Your task to perform on an android device: open app "The Home Depot" (install if not already installed), go to login, and select forgot password Image 0: 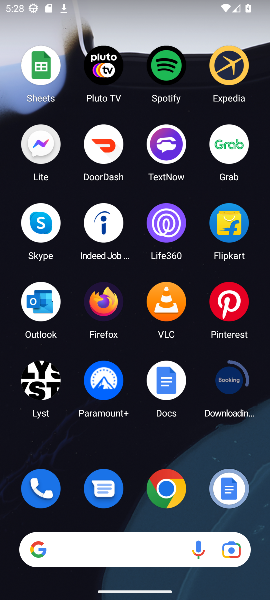
Step 0: press home button
Your task to perform on an android device: open app "The Home Depot" (install if not already installed), go to login, and select forgot password Image 1: 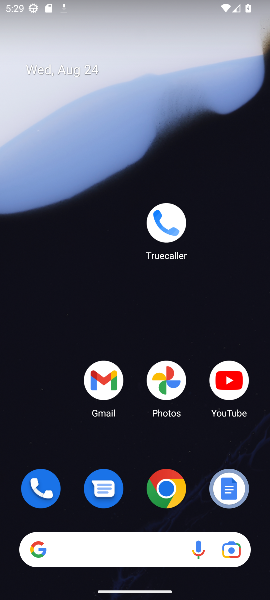
Step 1: drag from (148, 523) to (68, 1)
Your task to perform on an android device: open app "The Home Depot" (install if not already installed), go to login, and select forgot password Image 2: 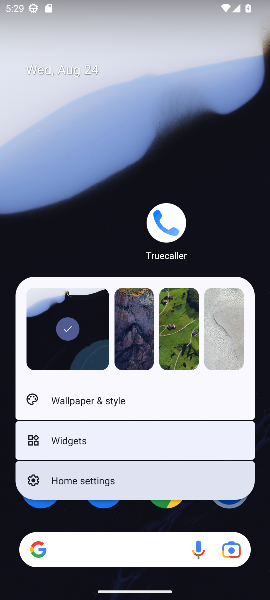
Step 2: click (65, 162)
Your task to perform on an android device: open app "The Home Depot" (install if not already installed), go to login, and select forgot password Image 3: 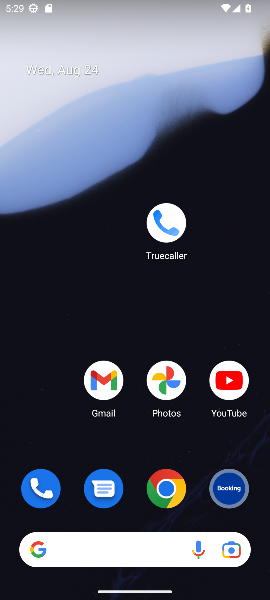
Step 3: drag from (134, 515) to (140, 132)
Your task to perform on an android device: open app "The Home Depot" (install if not already installed), go to login, and select forgot password Image 4: 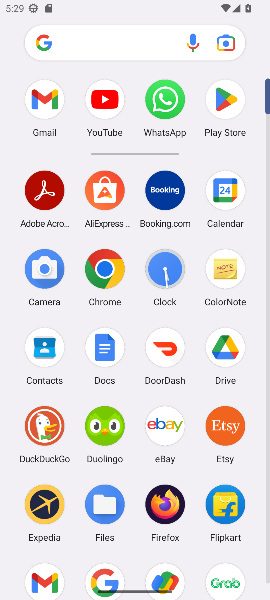
Step 4: click (214, 108)
Your task to perform on an android device: open app "The Home Depot" (install if not already installed), go to login, and select forgot password Image 5: 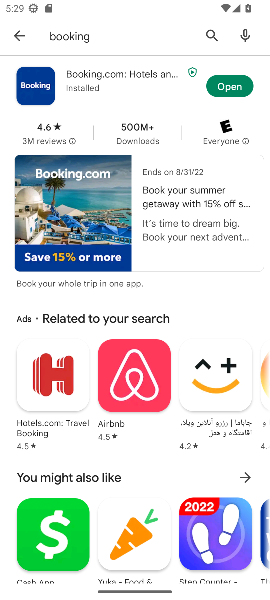
Step 5: click (218, 42)
Your task to perform on an android device: open app "The Home Depot" (install if not already installed), go to login, and select forgot password Image 6: 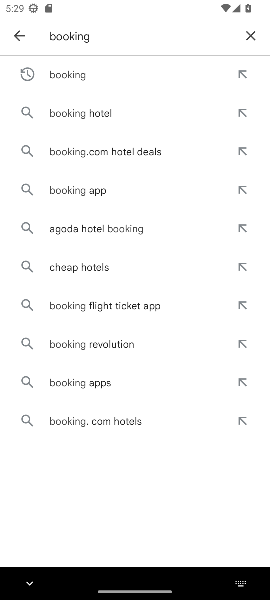
Step 6: click (242, 42)
Your task to perform on an android device: open app "The Home Depot" (install if not already installed), go to login, and select forgot password Image 7: 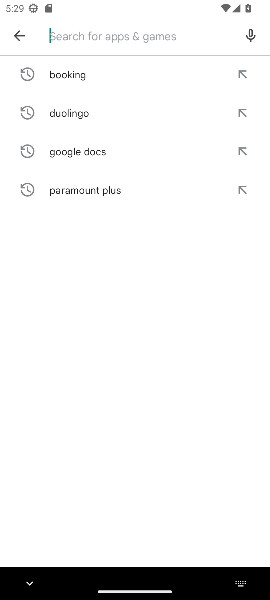
Step 7: type "the home depot"
Your task to perform on an android device: open app "The Home Depot" (install if not already installed), go to login, and select forgot password Image 8: 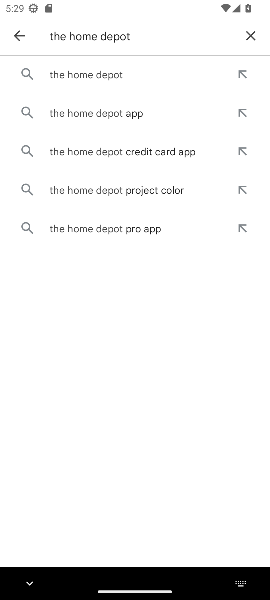
Step 8: click (147, 78)
Your task to perform on an android device: open app "The Home Depot" (install if not already installed), go to login, and select forgot password Image 9: 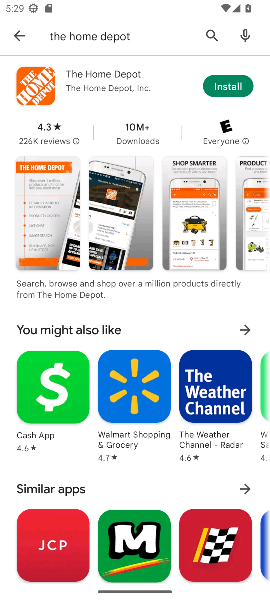
Step 9: click (237, 82)
Your task to perform on an android device: open app "The Home Depot" (install if not already installed), go to login, and select forgot password Image 10: 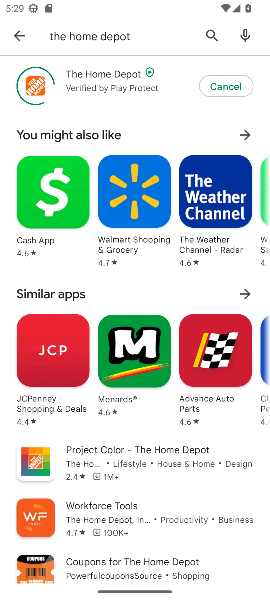
Step 10: task complete